Your task to perform on an android device: turn off javascript in the chrome app Image 0: 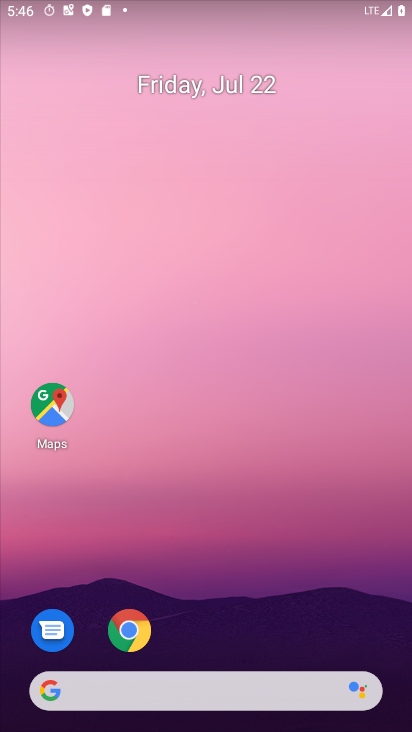
Step 0: drag from (278, 671) to (275, 96)
Your task to perform on an android device: turn off javascript in the chrome app Image 1: 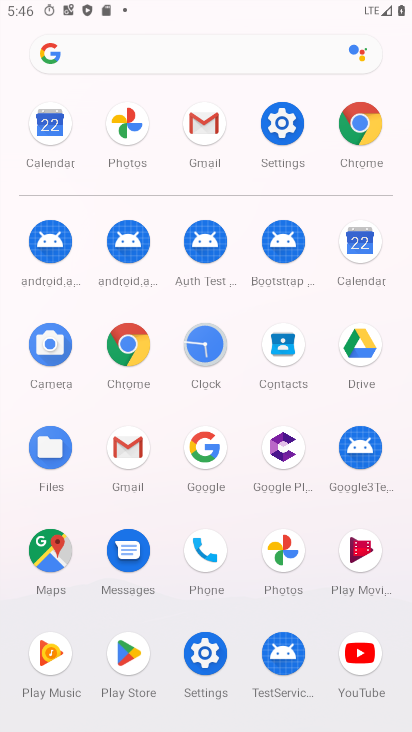
Step 1: click (137, 342)
Your task to perform on an android device: turn off javascript in the chrome app Image 2: 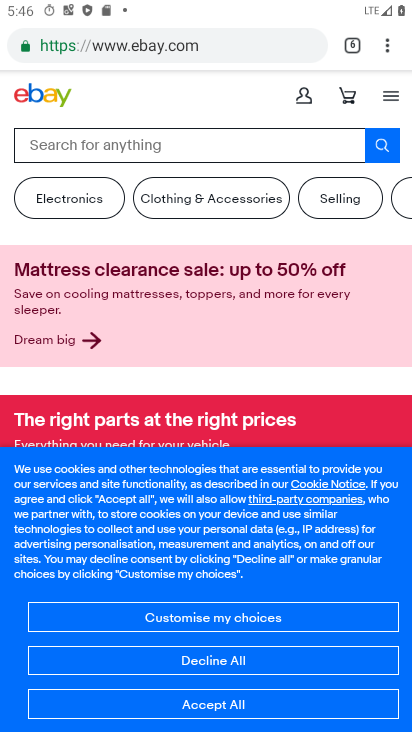
Step 2: drag from (390, 37) to (254, 539)
Your task to perform on an android device: turn off javascript in the chrome app Image 3: 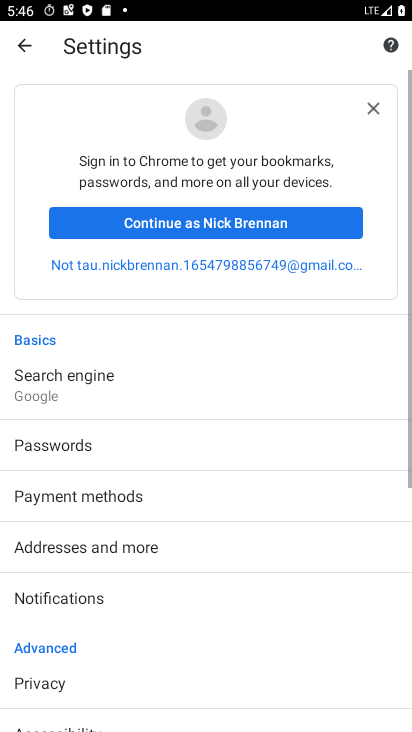
Step 3: drag from (29, 519) to (30, 175)
Your task to perform on an android device: turn off javascript in the chrome app Image 4: 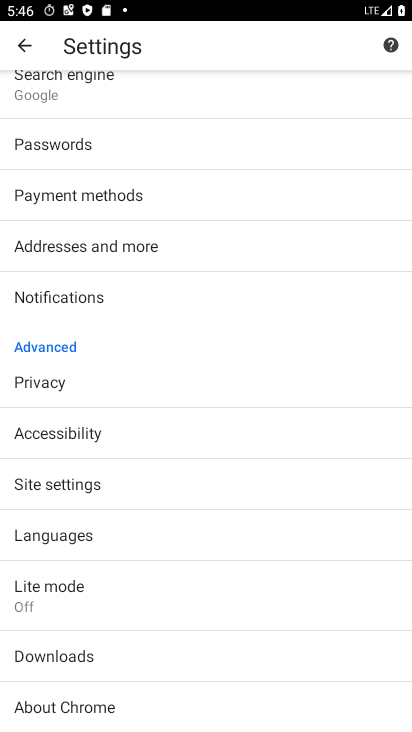
Step 4: click (64, 492)
Your task to perform on an android device: turn off javascript in the chrome app Image 5: 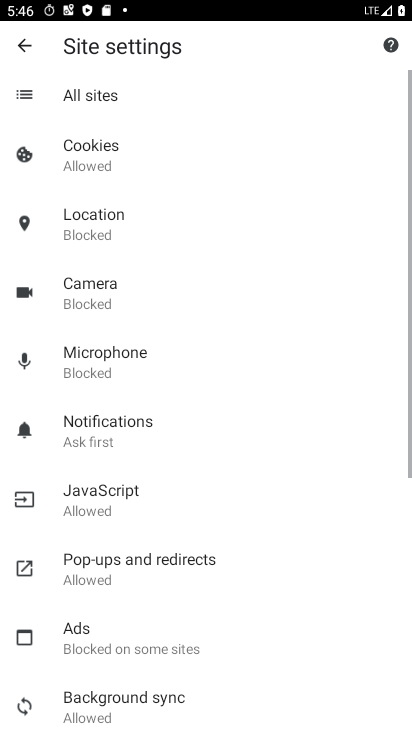
Step 5: click (105, 497)
Your task to perform on an android device: turn off javascript in the chrome app Image 6: 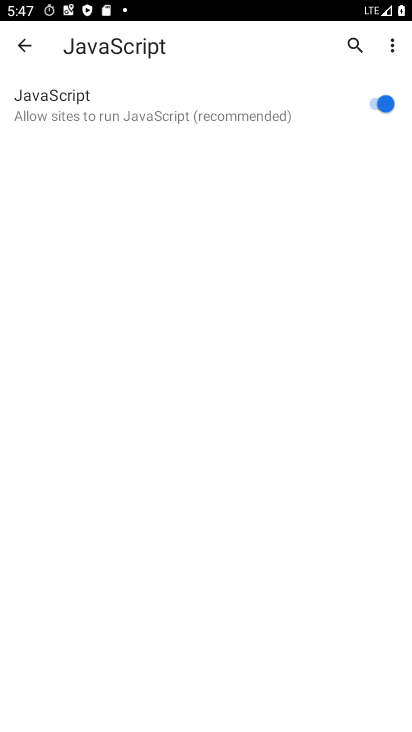
Step 6: click (377, 101)
Your task to perform on an android device: turn off javascript in the chrome app Image 7: 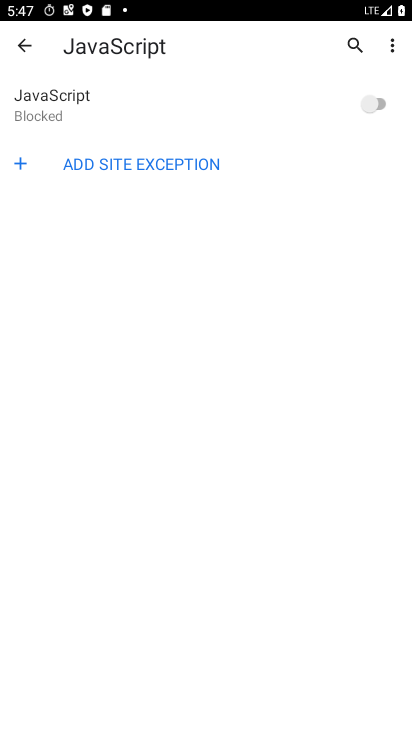
Step 7: task complete